Your task to perform on an android device: Show me popular videos on Youtube Image 0: 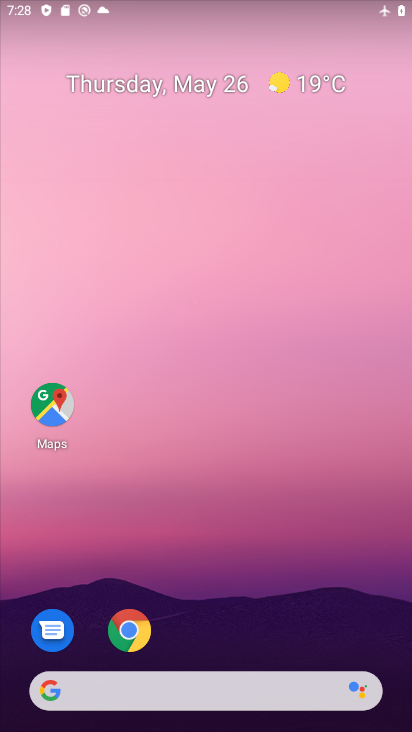
Step 0: drag from (270, 619) to (175, 186)
Your task to perform on an android device: Show me popular videos on Youtube Image 1: 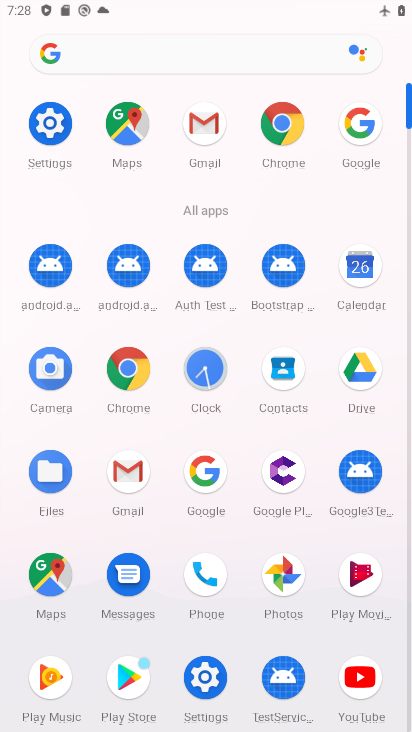
Step 1: drag from (251, 607) to (259, 478)
Your task to perform on an android device: Show me popular videos on Youtube Image 2: 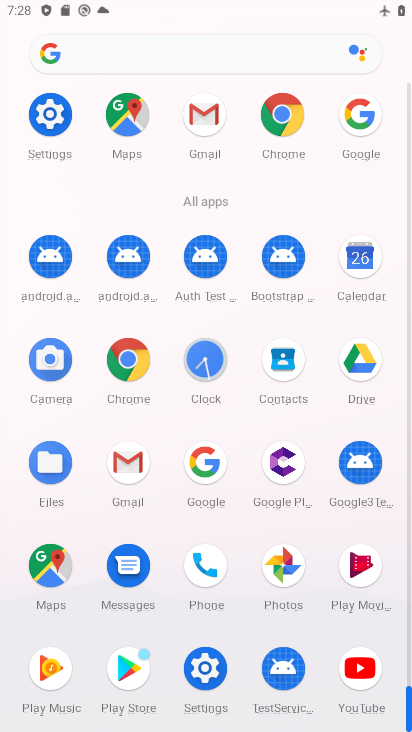
Step 2: click (364, 670)
Your task to perform on an android device: Show me popular videos on Youtube Image 3: 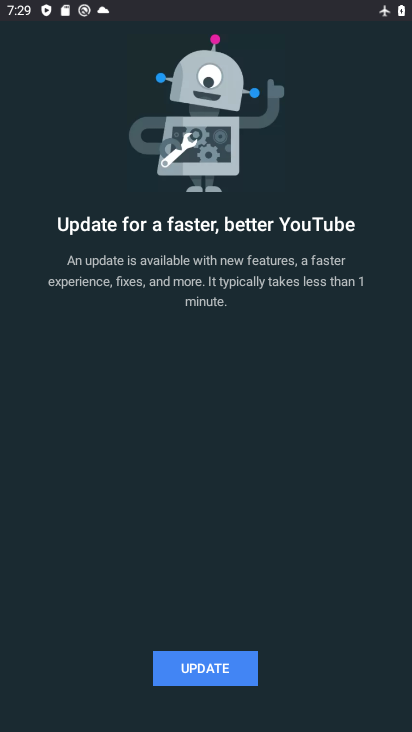
Step 3: click (220, 670)
Your task to perform on an android device: Show me popular videos on Youtube Image 4: 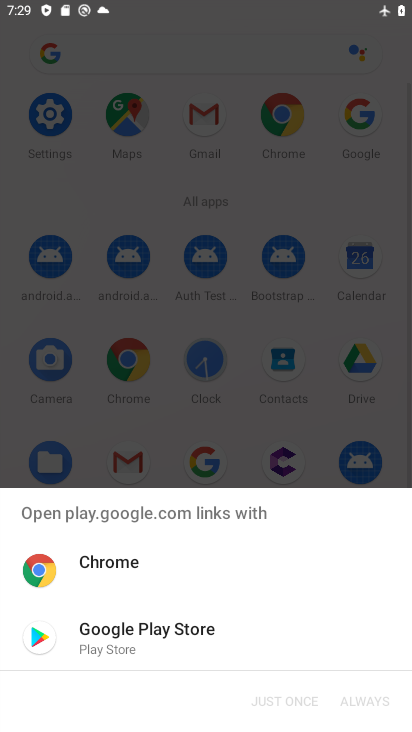
Step 4: click (160, 633)
Your task to perform on an android device: Show me popular videos on Youtube Image 5: 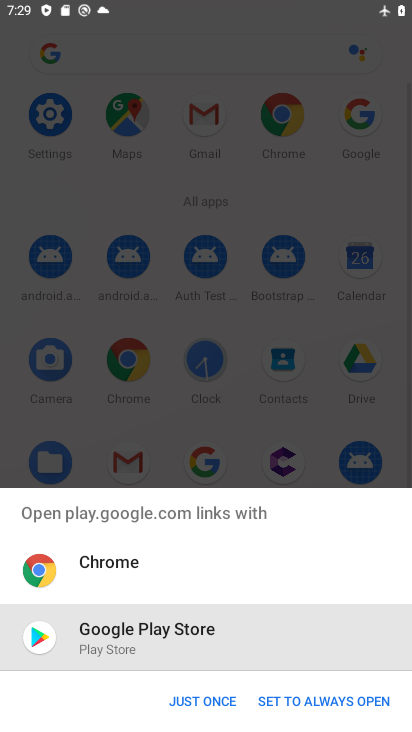
Step 5: click (193, 701)
Your task to perform on an android device: Show me popular videos on Youtube Image 6: 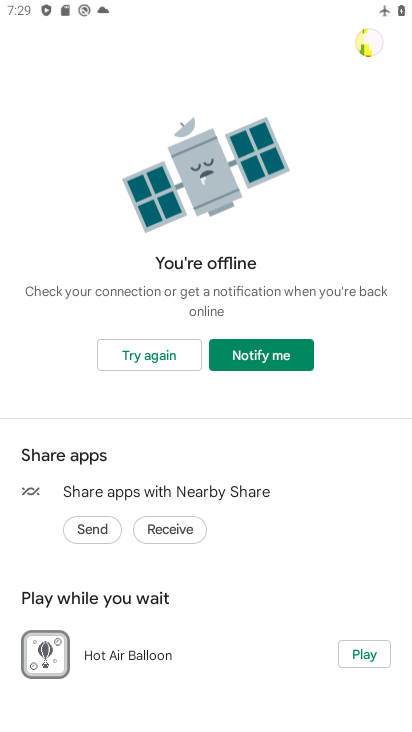
Step 6: task complete